Your task to perform on an android device: turn on javascript in the chrome app Image 0: 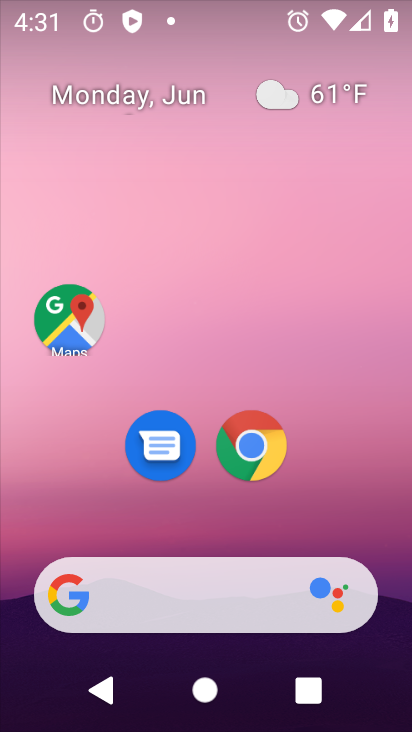
Step 0: click (268, 441)
Your task to perform on an android device: turn on javascript in the chrome app Image 1: 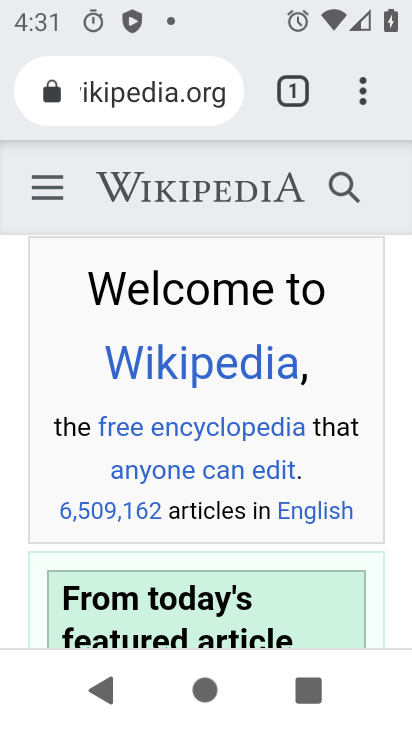
Step 1: click (363, 89)
Your task to perform on an android device: turn on javascript in the chrome app Image 2: 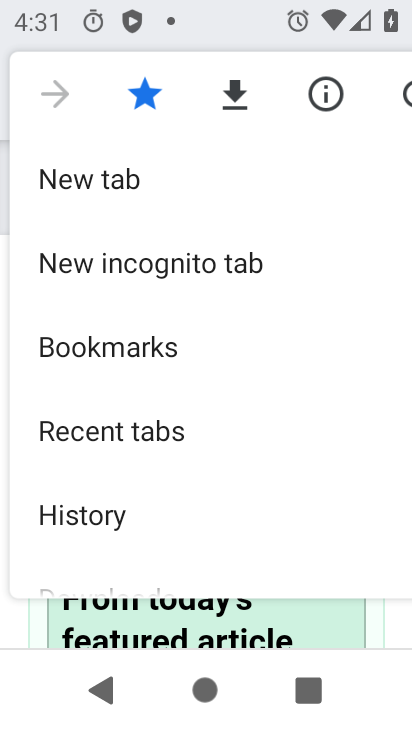
Step 2: drag from (145, 473) to (155, 143)
Your task to perform on an android device: turn on javascript in the chrome app Image 3: 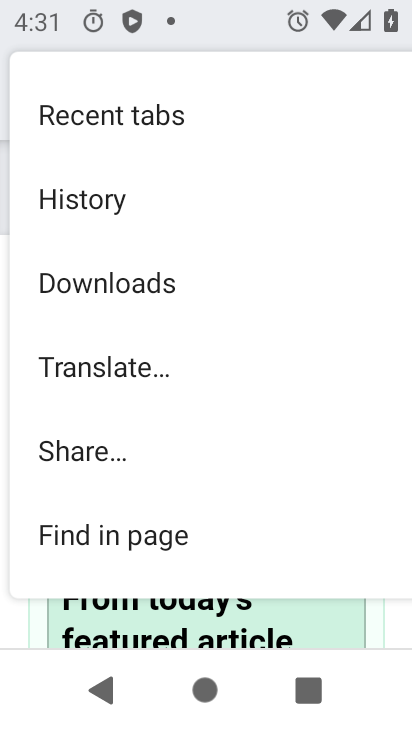
Step 3: drag from (125, 434) to (161, 161)
Your task to perform on an android device: turn on javascript in the chrome app Image 4: 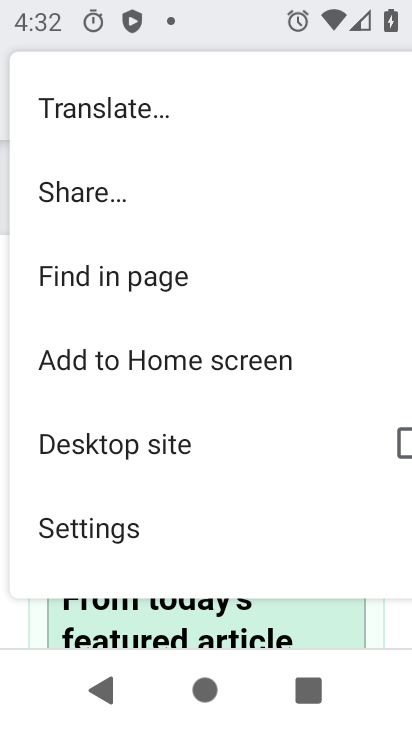
Step 4: click (106, 532)
Your task to perform on an android device: turn on javascript in the chrome app Image 5: 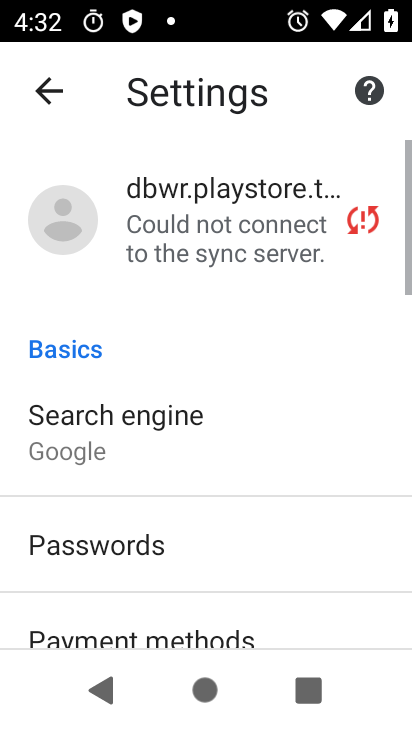
Step 5: drag from (121, 567) to (241, 270)
Your task to perform on an android device: turn on javascript in the chrome app Image 6: 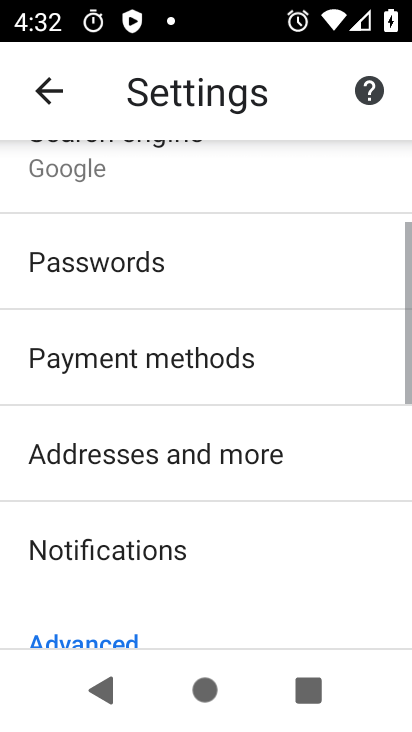
Step 6: drag from (216, 526) to (237, 213)
Your task to perform on an android device: turn on javascript in the chrome app Image 7: 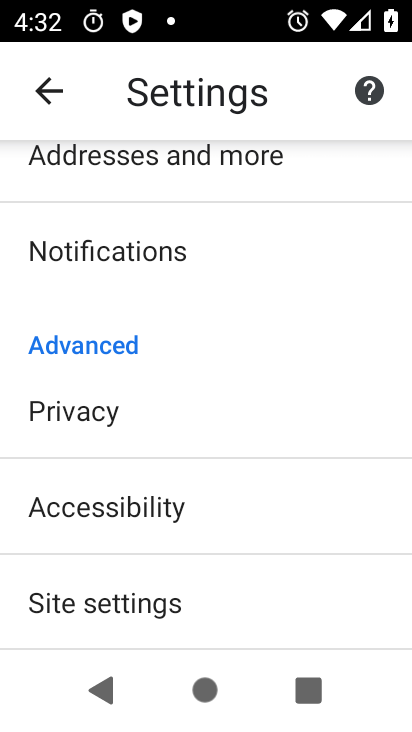
Step 7: drag from (167, 561) to (195, 338)
Your task to perform on an android device: turn on javascript in the chrome app Image 8: 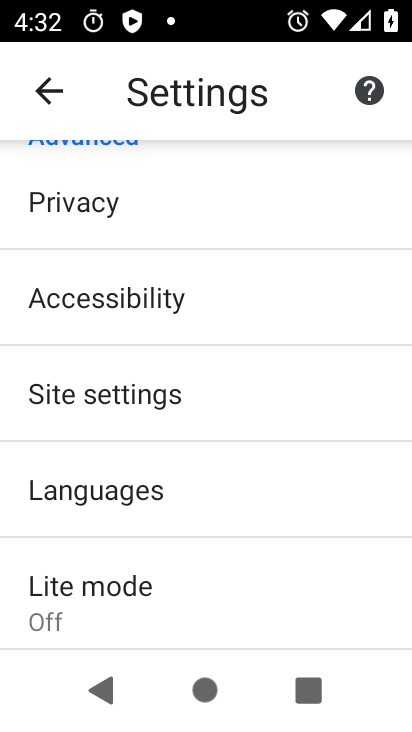
Step 8: click (134, 395)
Your task to perform on an android device: turn on javascript in the chrome app Image 9: 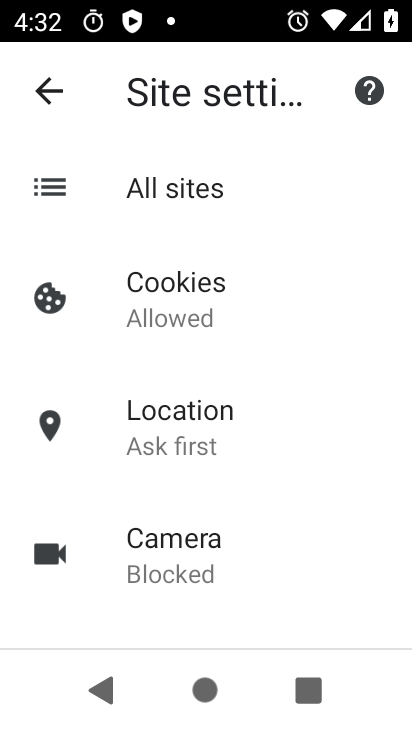
Step 9: drag from (236, 508) to (258, 367)
Your task to perform on an android device: turn on javascript in the chrome app Image 10: 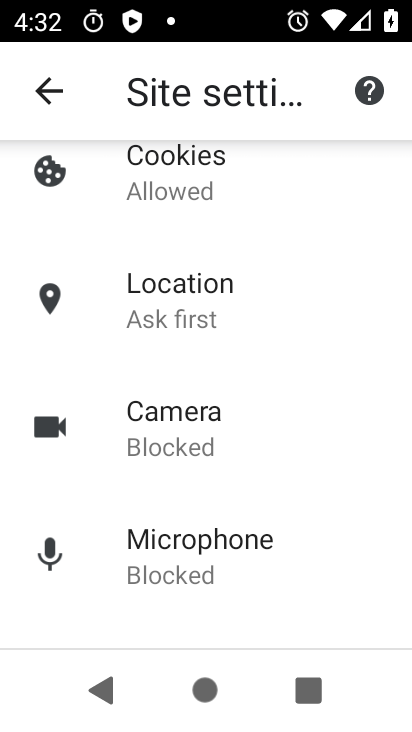
Step 10: drag from (158, 216) to (177, 459)
Your task to perform on an android device: turn on javascript in the chrome app Image 11: 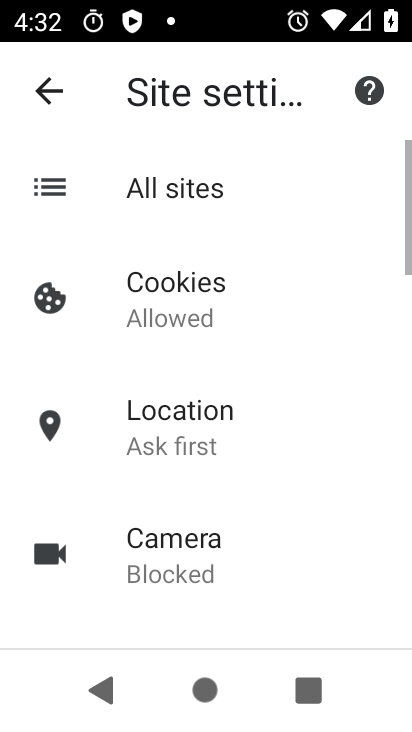
Step 11: drag from (180, 469) to (179, 63)
Your task to perform on an android device: turn on javascript in the chrome app Image 12: 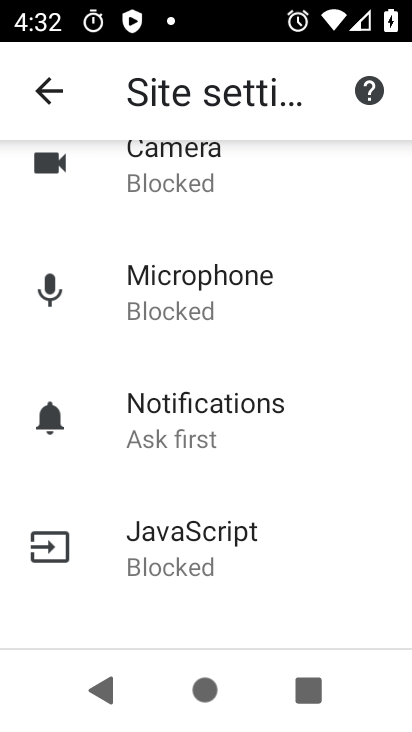
Step 12: click (181, 543)
Your task to perform on an android device: turn on javascript in the chrome app Image 13: 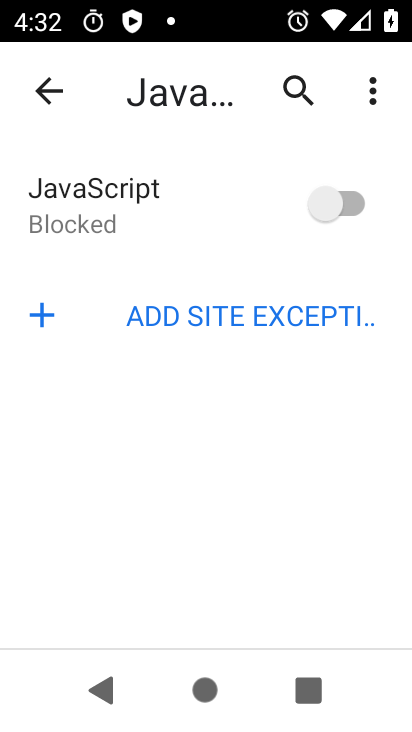
Step 13: click (330, 218)
Your task to perform on an android device: turn on javascript in the chrome app Image 14: 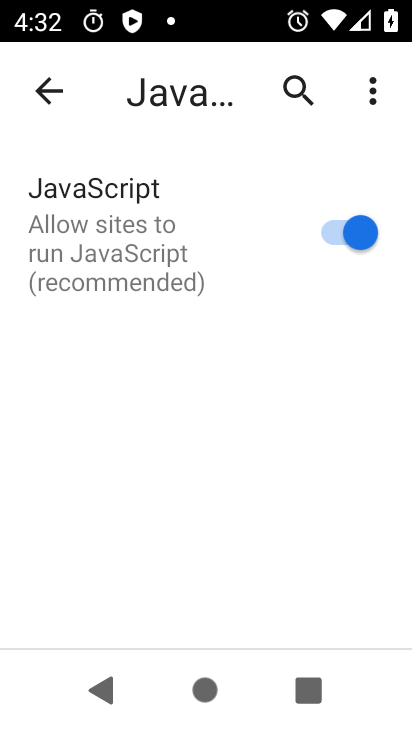
Step 14: task complete